Your task to perform on an android device: Find coffee shops on Maps Image 0: 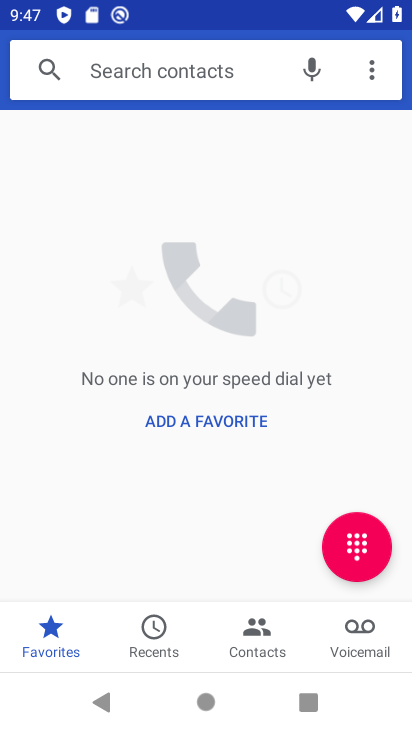
Step 0: press home button
Your task to perform on an android device: Find coffee shops on Maps Image 1: 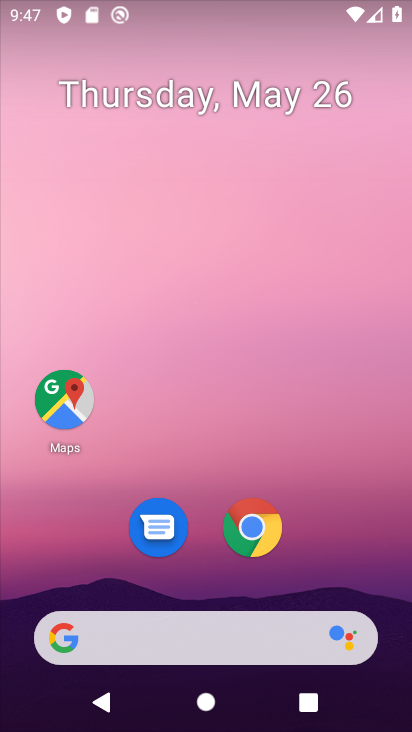
Step 1: click (71, 416)
Your task to perform on an android device: Find coffee shops on Maps Image 2: 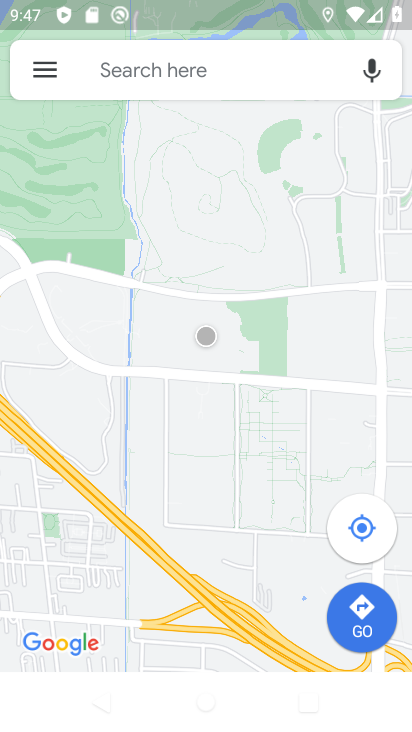
Step 2: click (183, 86)
Your task to perform on an android device: Find coffee shops on Maps Image 3: 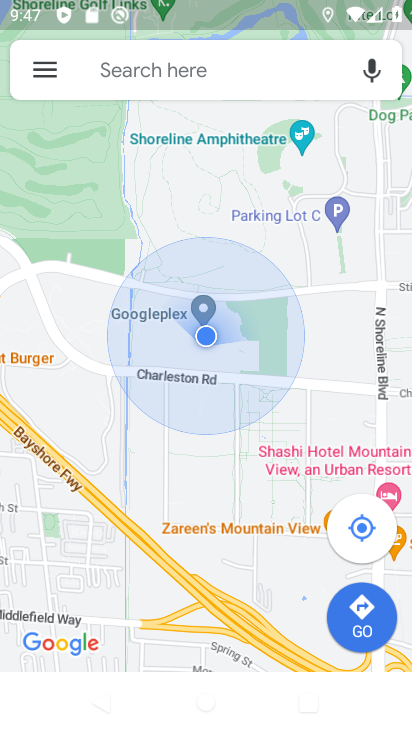
Step 3: click (184, 77)
Your task to perform on an android device: Find coffee shops on Maps Image 4: 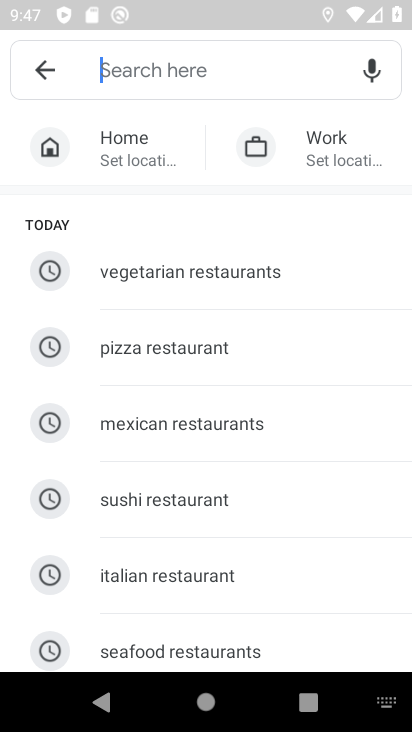
Step 4: type "coffee shops"
Your task to perform on an android device: Find coffee shops on Maps Image 5: 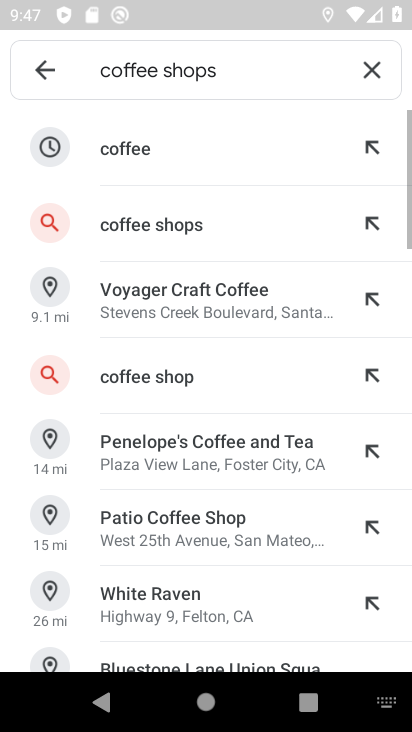
Step 5: click (177, 220)
Your task to perform on an android device: Find coffee shops on Maps Image 6: 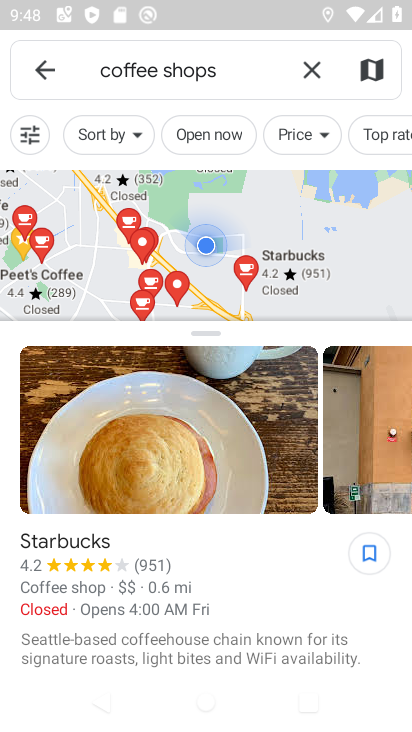
Step 6: task complete